Your task to perform on an android device: Add energizer triple a to the cart on target, then select checkout. Image 0: 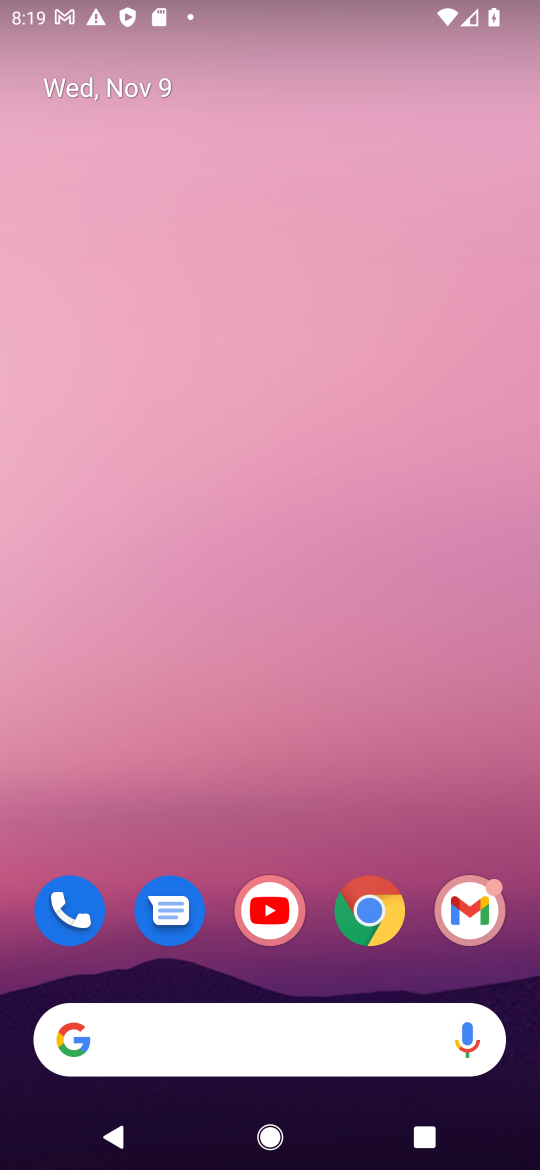
Step 0: click (367, 911)
Your task to perform on an android device: Add energizer triple a to the cart on target, then select checkout. Image 1: 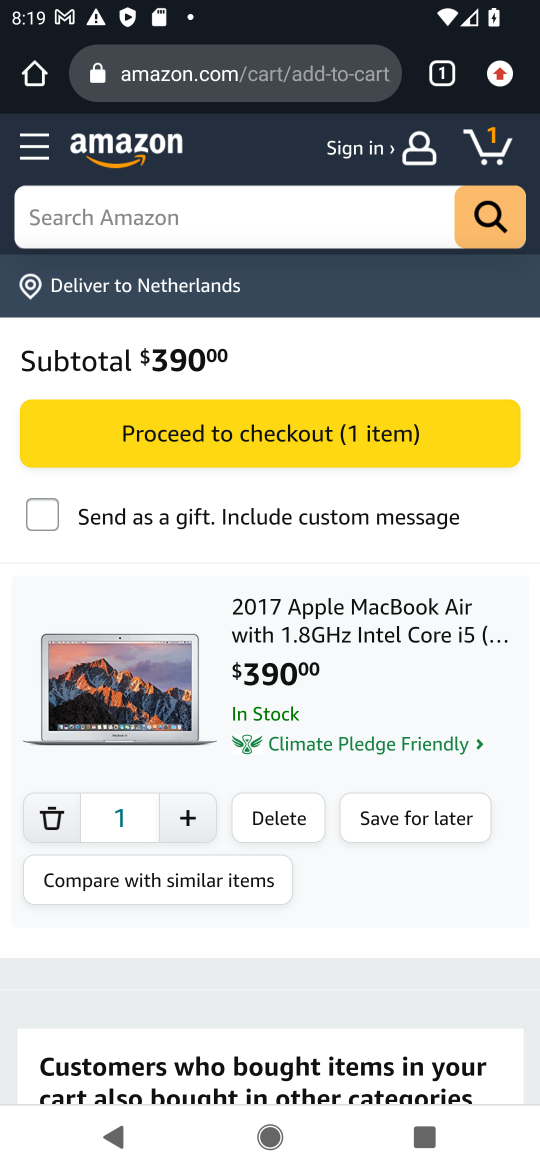
Step 1: click (241, 77)
Your task to perform on an android device: Add energizer triple a to the cart on target, then select checkout. Image 2: 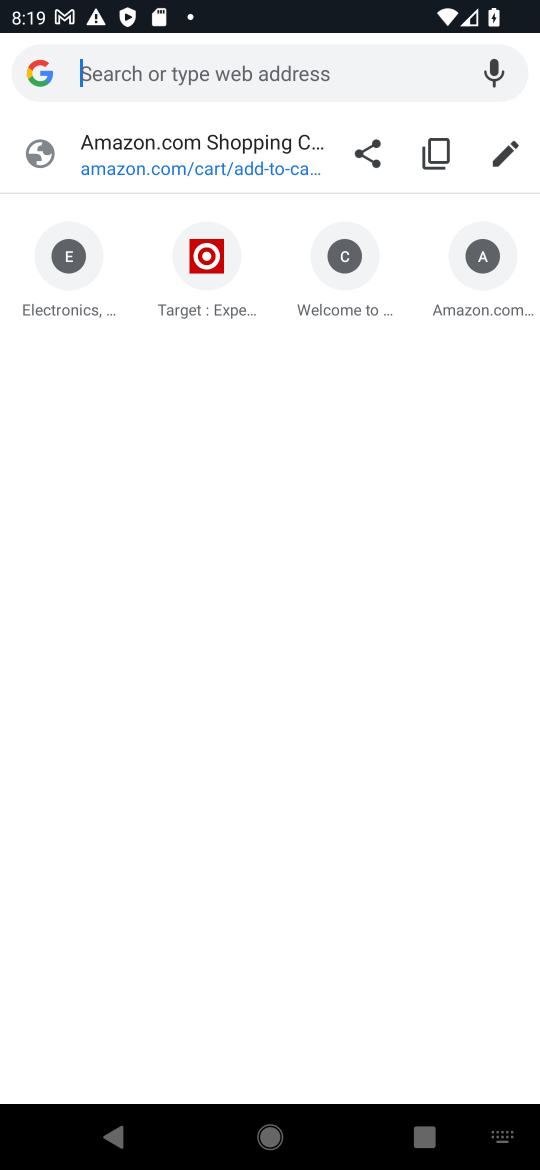
Step 2: click (218, 276)
Your task to perform on an android device: Add energizer triple a to the cart on target, then select checkout. Image 3: 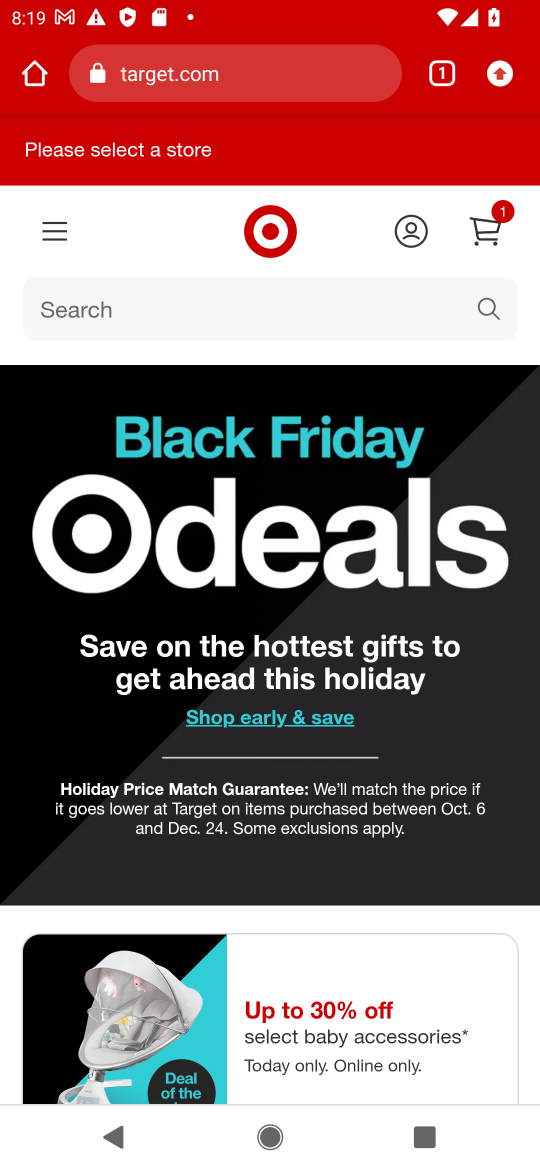
Step 3: click (488, 307)
Your task to perform on an android device: Add energizer triple a to the cart on target, then select checkout. Image 4: 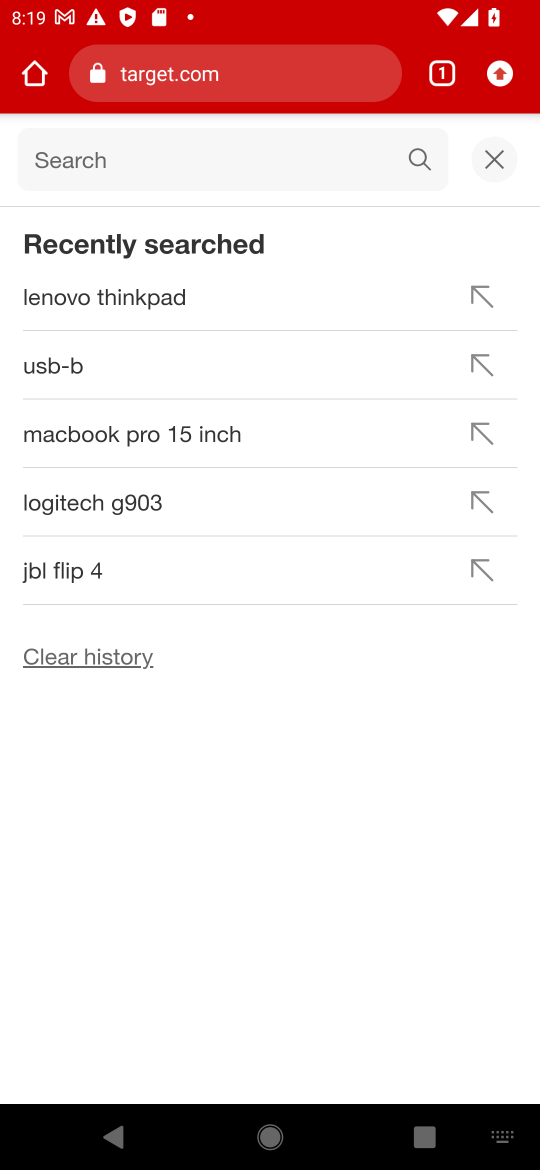
Step 4: type "energizer triple a"
Your task to perform on an android device: Add energizer triple a to the cart on target, then select checkout. Image 5: 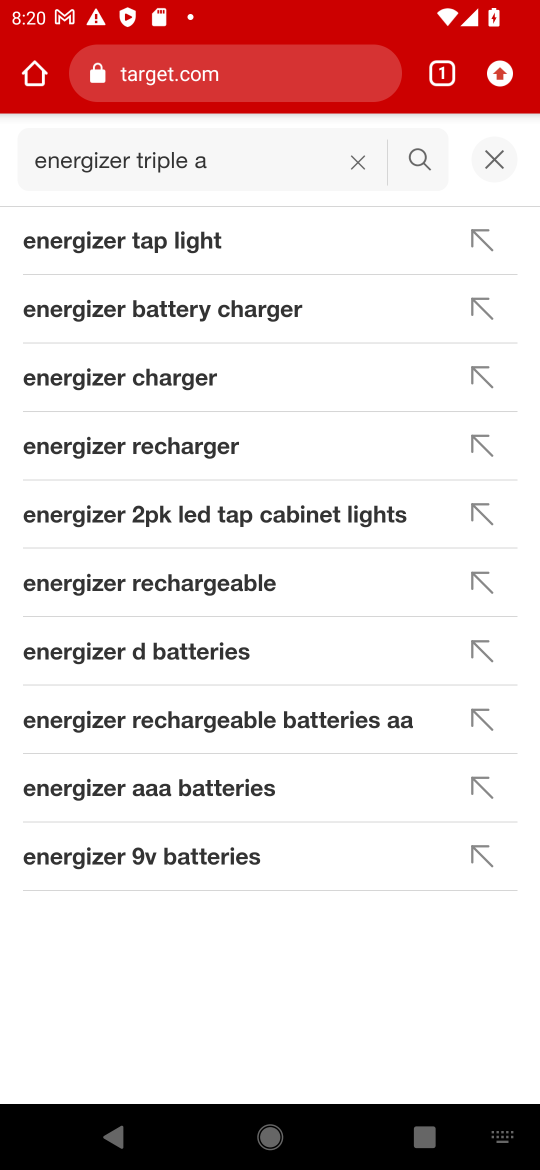
Step 5: click (427, 154)
Your task to perform on an android device: Add energizer triple a to the cart on target, then select checkout. Image 6: 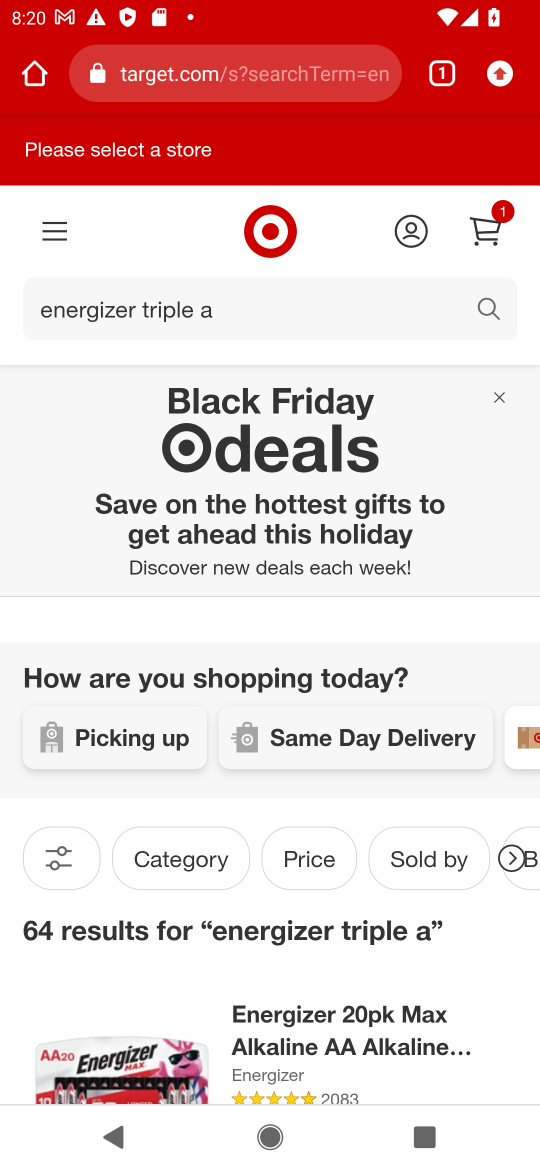
Step 6: drag from (222, 1055) to (213, 722)
Your task to perform on an android device: Add energizer triple a to the cart on target, then select checkout. Image 7: 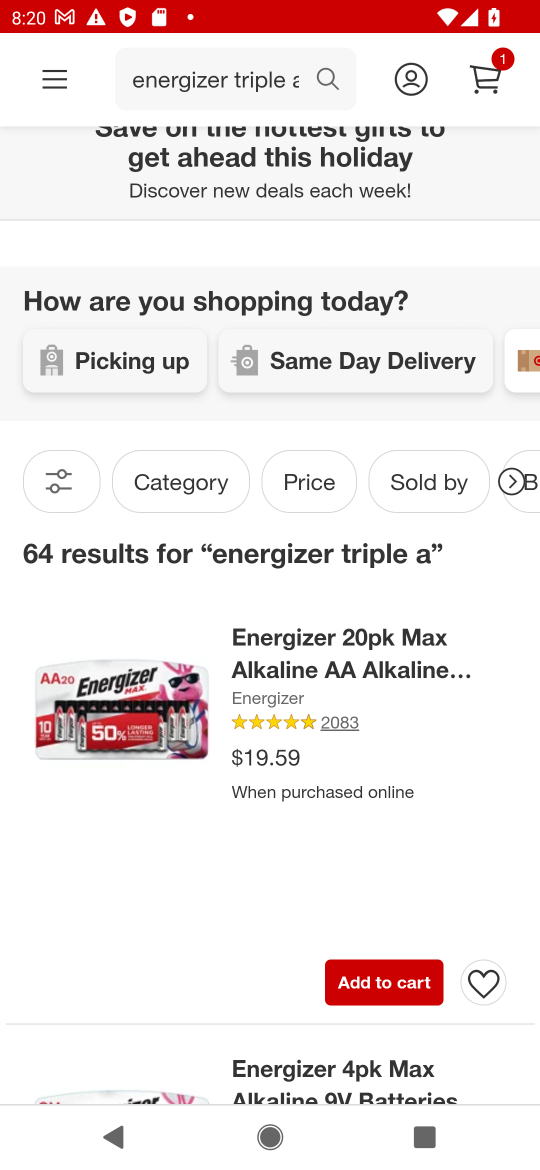
Step 7: drag from (230, 851) to (204, 559)
Your task to perform on an android device: Add energizer triple a to the cart on target, then select checkout. Image 8: 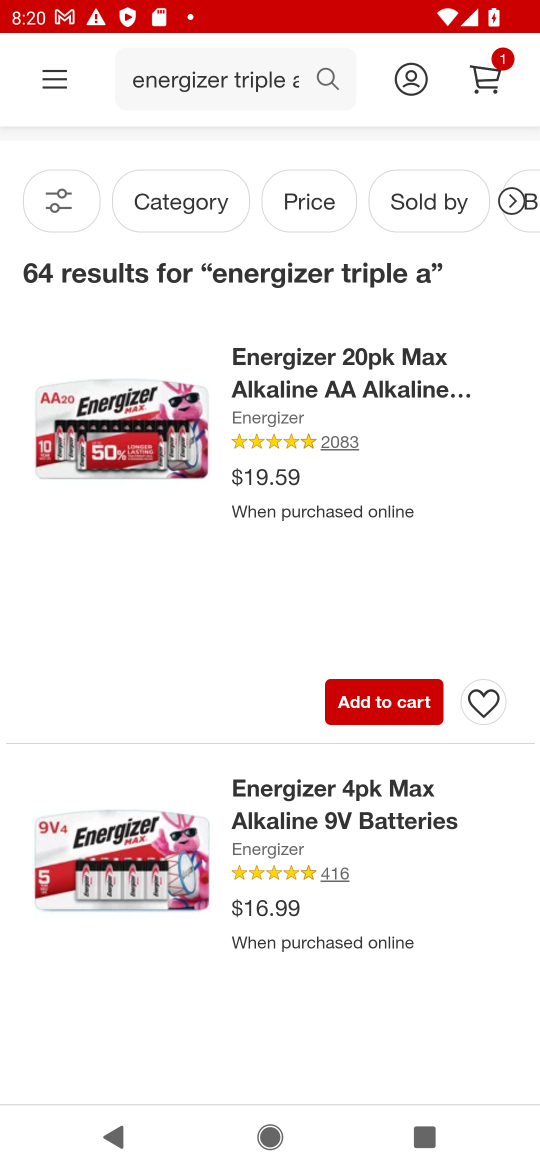
Step 8: drag from (206, 926) to (201, 630)
Your task to perform on an android device: Add energizer triple a to the cart on target, then select checkout. Image 9: 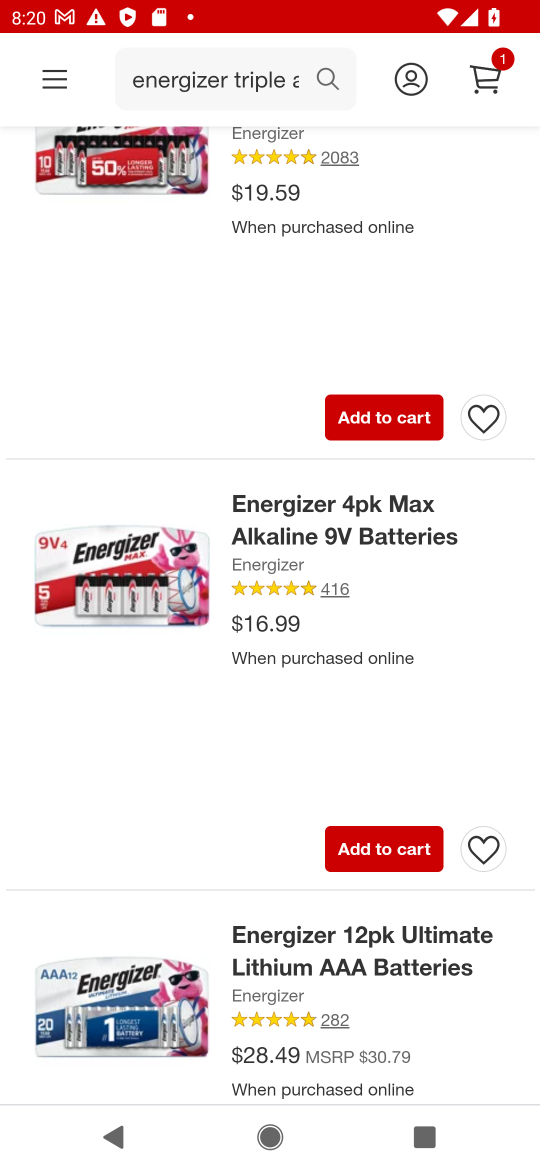
Step 9: drag from (177, 995) to (168, 787)
Your task to perform on an android device: Add energizer triple a to the cart on target, then select checkout. Image 10: 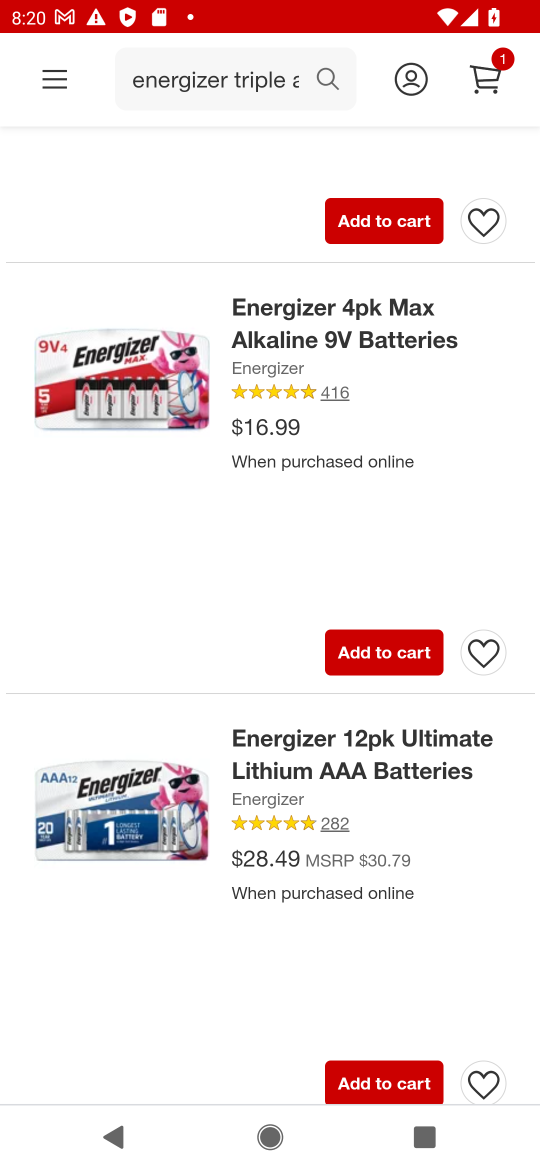
Step 10: click (369, 1078)
Your task to perform on an android device: Add energizer triple a to the cart on target, then select checkout. Image 11: 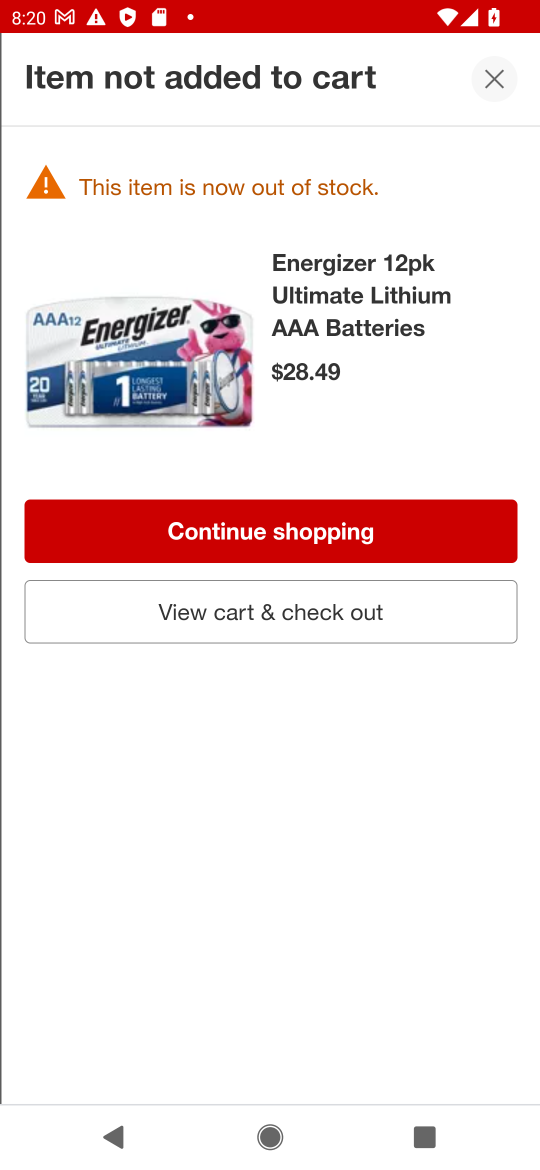
Step 11: click (285, 616)
Your task to perform on an android device: Add energizer triple a to the cart on target, then select checkout. Image 12: 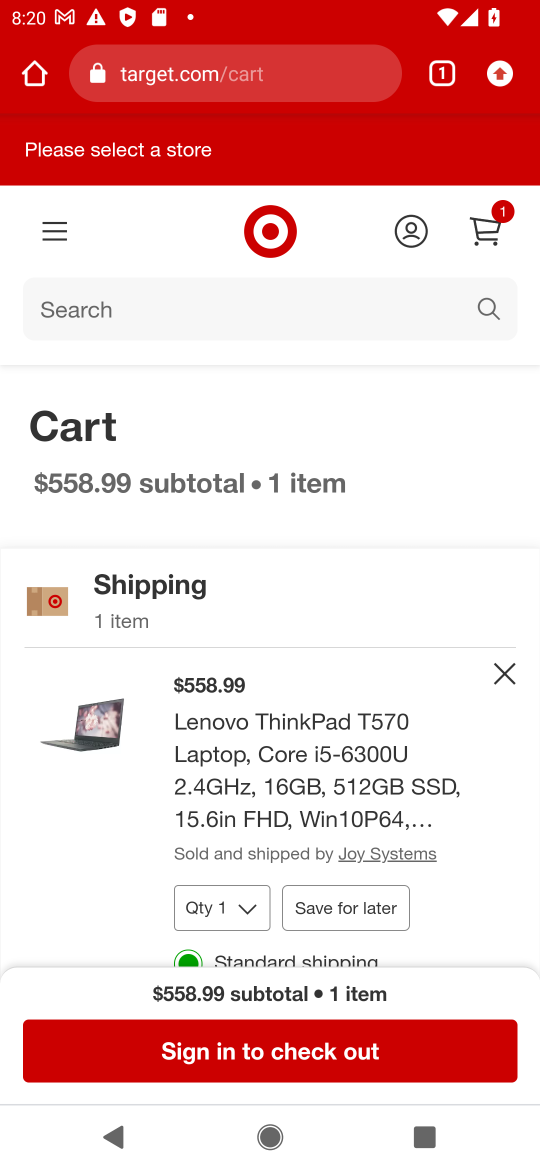
Step 12: task complete